Your task to perform on an android device: Is it going to rain this weekend? Image 0: 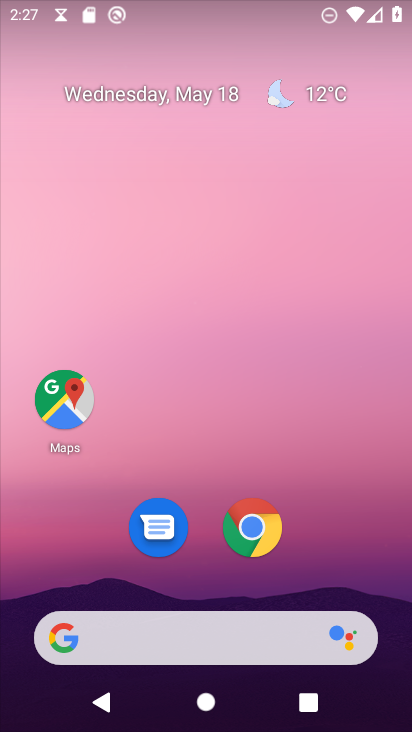
Step 0: click (287, 92)
Your task to perform on an android device: Is it going to rain this weekend? Image 1: 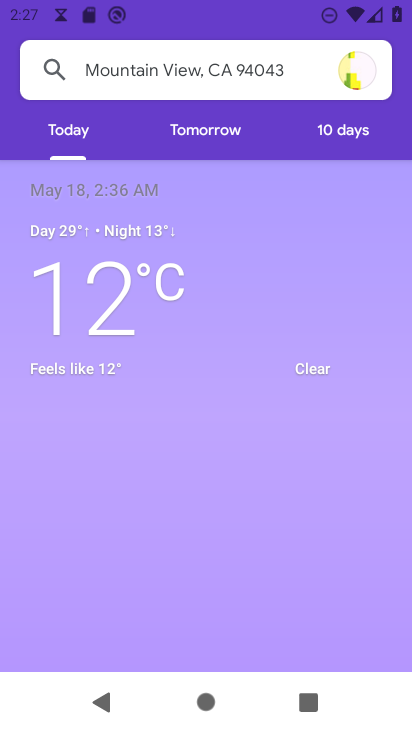
Step 1: click (331, 135)
Your task to perform on an android device: Is it going to rain this weekend? Image 2: 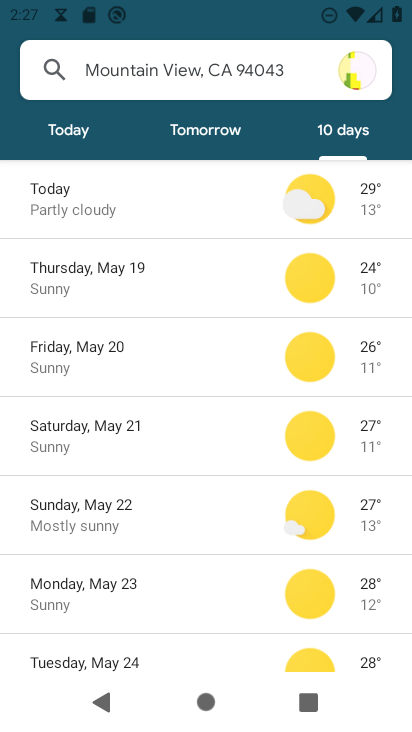
Step 2: task complete